Your task to perform on an android device: Open Google Chrome and click the shortcut for Amazon.com Image 0: 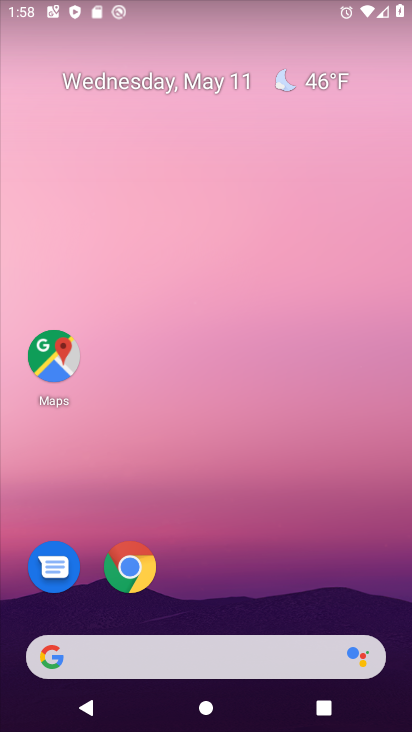
Step 0: drag from (211, 606) to (174, 4)
Your task to perform on an android device: Open Google Chrome and click the shortcut for Amazon.com Image 1: 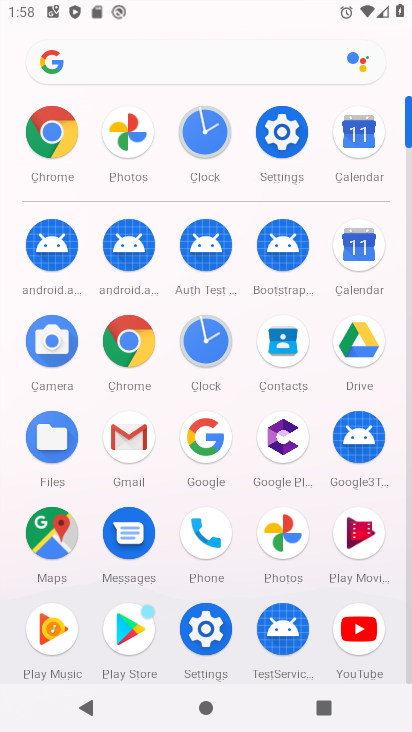
Step 1: click (138, 346)
Your task to perform on an android device: Open Google Chrome and click the shortcut for Amazon.com Image 2: 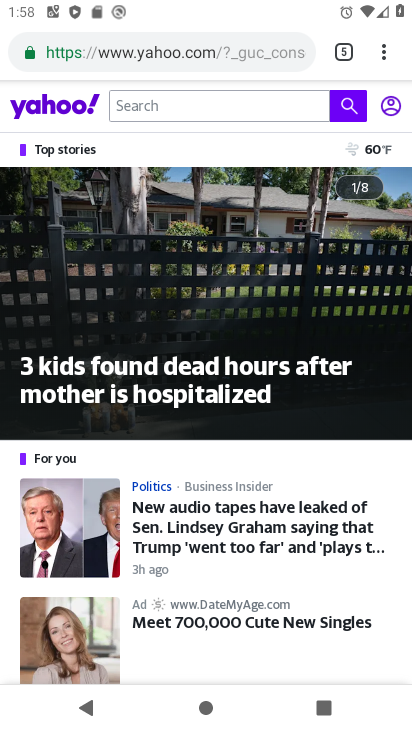
Step 2: click (330, 51)
Your task to perform on an android device: Open Google Chrome and click the shortcut for Amazon.com Image 3: 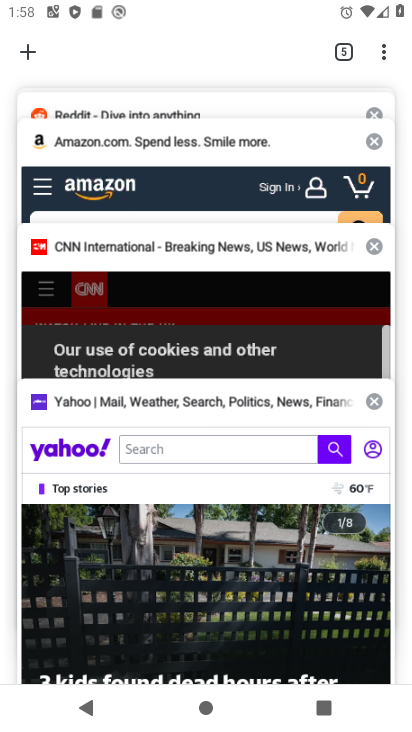
Step 3: click (81, 219)
Your task to perform on an android device: Open Google Chrome and click the shortcut for Amazon.com Image 4: 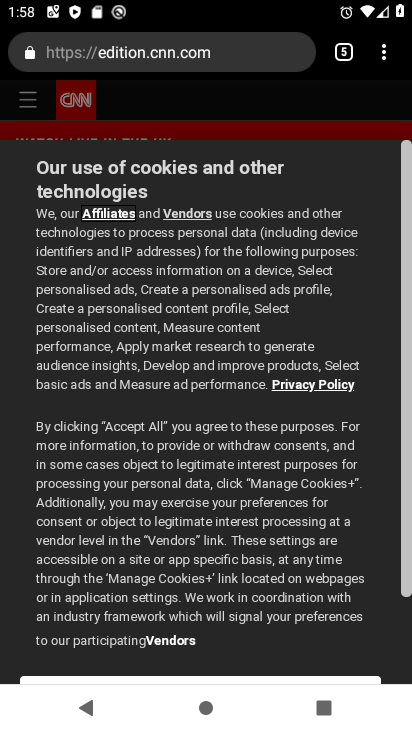
Step 4: task complete